Your task to perform on an android device: allow cookies in the chrome app Image 0: 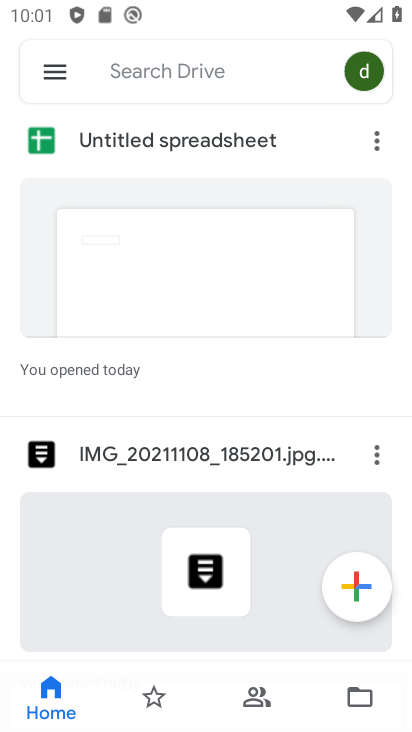
Step 0: press back button
Your task to perform on an android device: allow cookies in the chrome app Image 1: 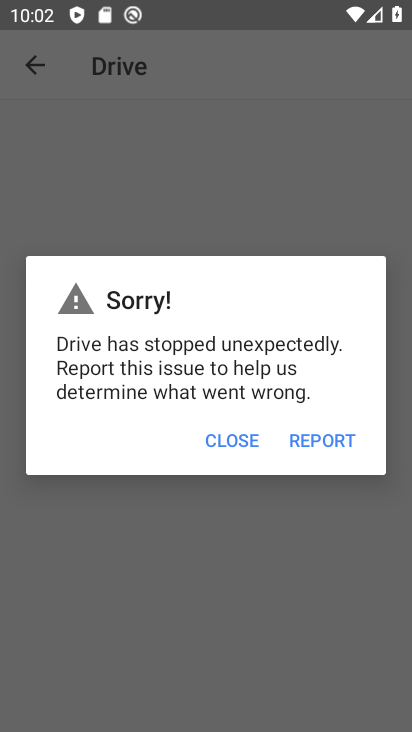
Step 1: press back button
Your task to perform on an android device: allow cookies in the chrome app Image 2: 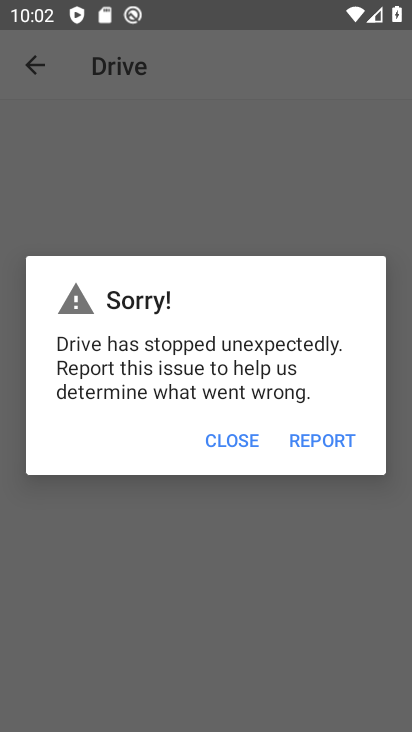
Step 2: press home button
Your task to perform on an android device: allow cookies in the chrome app Image 3: 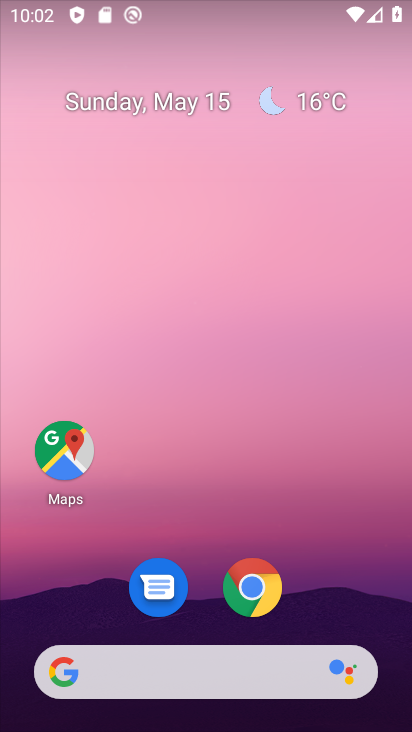
Step 3: drag from (326, 573) to (311, 29)
Your task to perform on an android device: allow cookies in the chrome app Image 4: 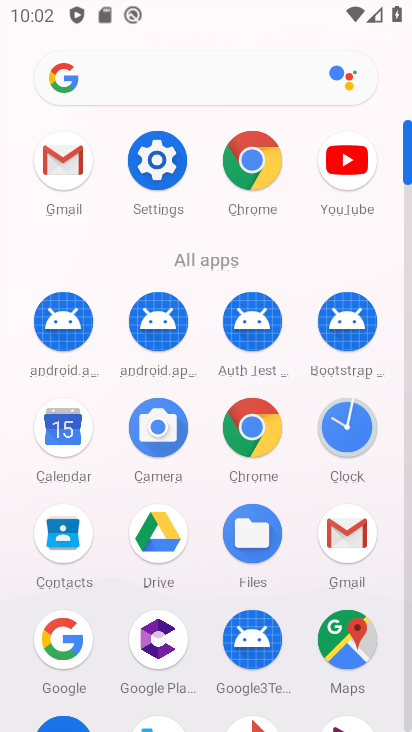
Step 4: click (246, 159)
Your task to perform on an android device: allow cookies in the chrome app Image 5: 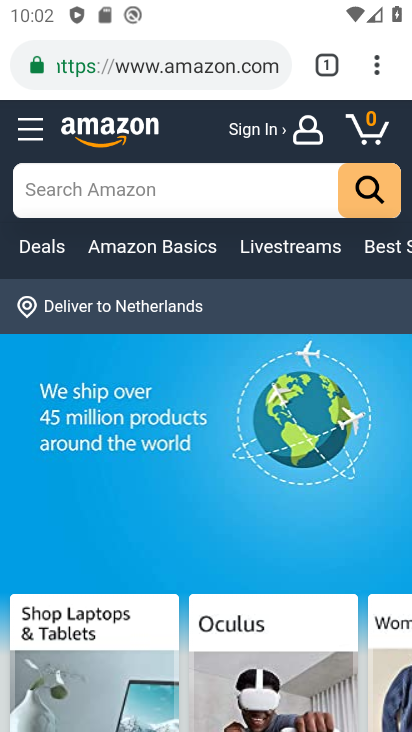
Step 5: drag from (377, 65) to (177, 627)
Your task to perform on an android device: allow cookies in the chrome app Image 6: 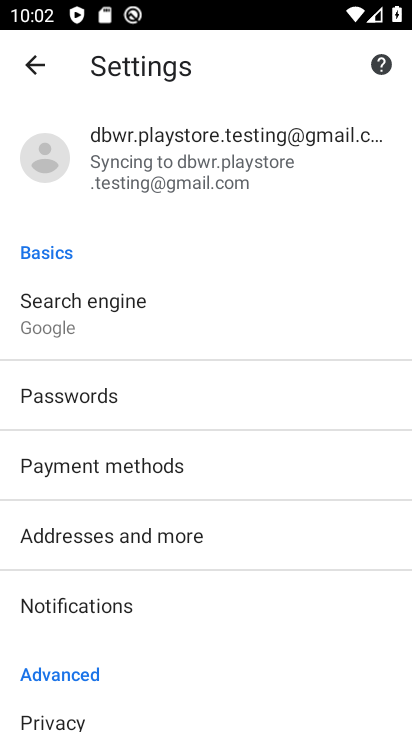
Step 6: drag from (249, 550) to (308, 171)
Your task to perform on an android device: allow cookies in the chrome app Image 7: 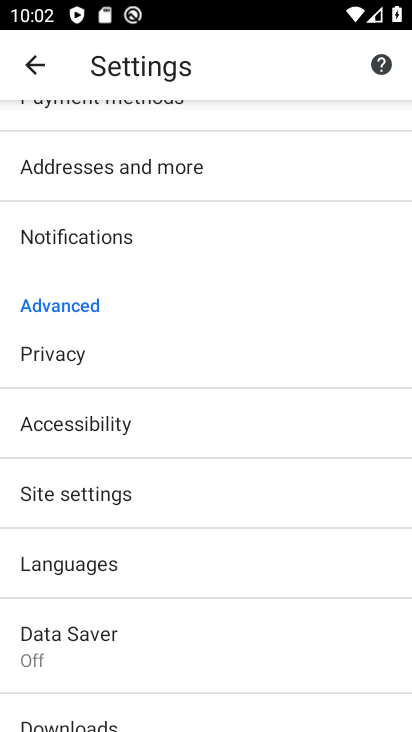
Step 7: click (142, 502)
Your task to perform on an android device: allow cookies in the chrome app Image 8: 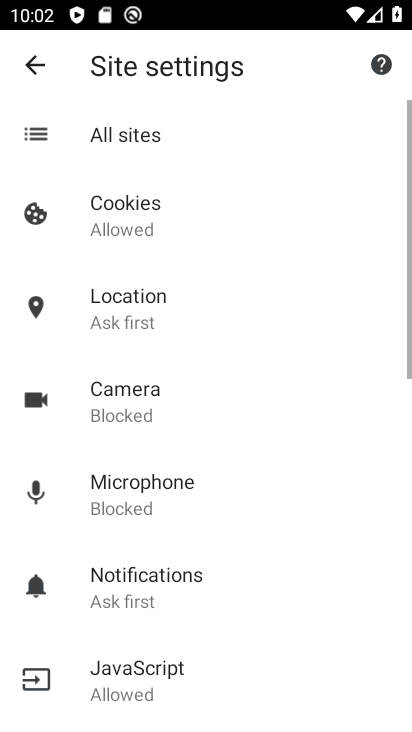
Step 8: task complete